Your task to perform on an android device: Show me recent news Image 0: 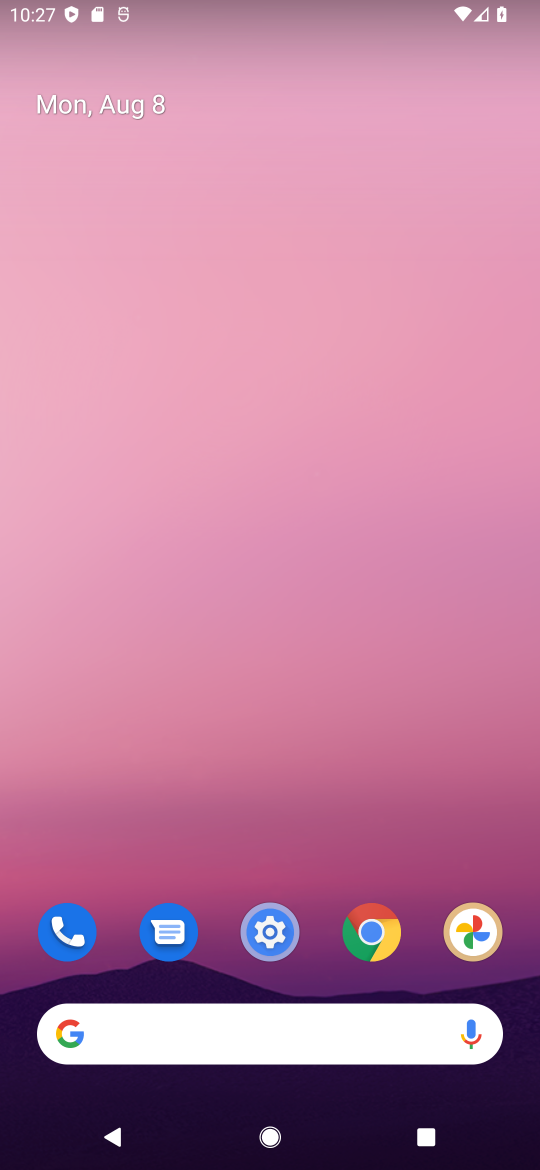
Step 0: click (369, 922)
Your task to perform on an android device: Show me recent news Image 1: 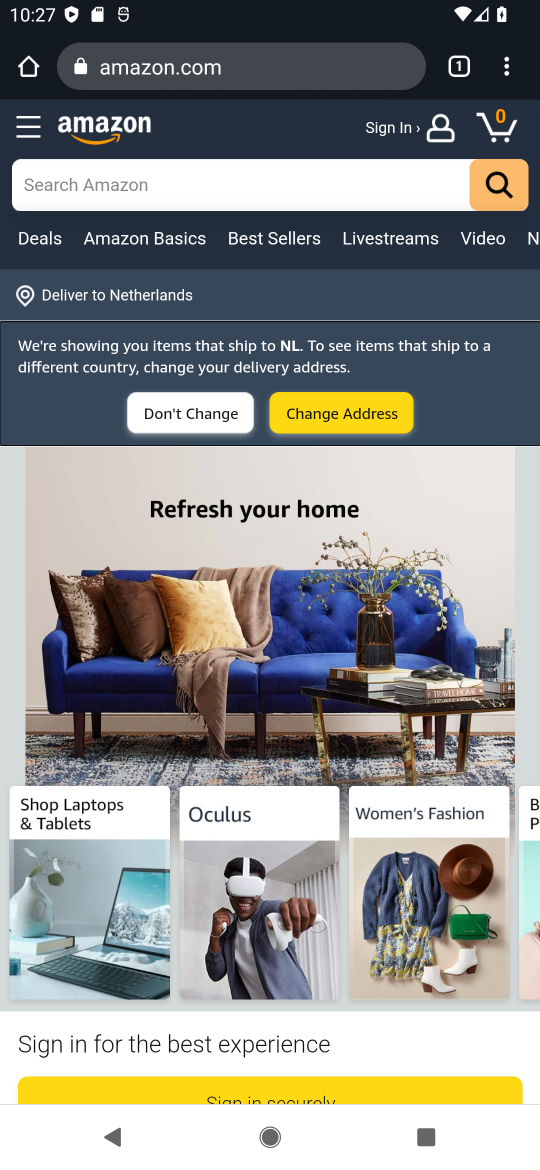
Step 1: click (36, 77)
Your task to perform on an android device: Show me recent news Image 2: 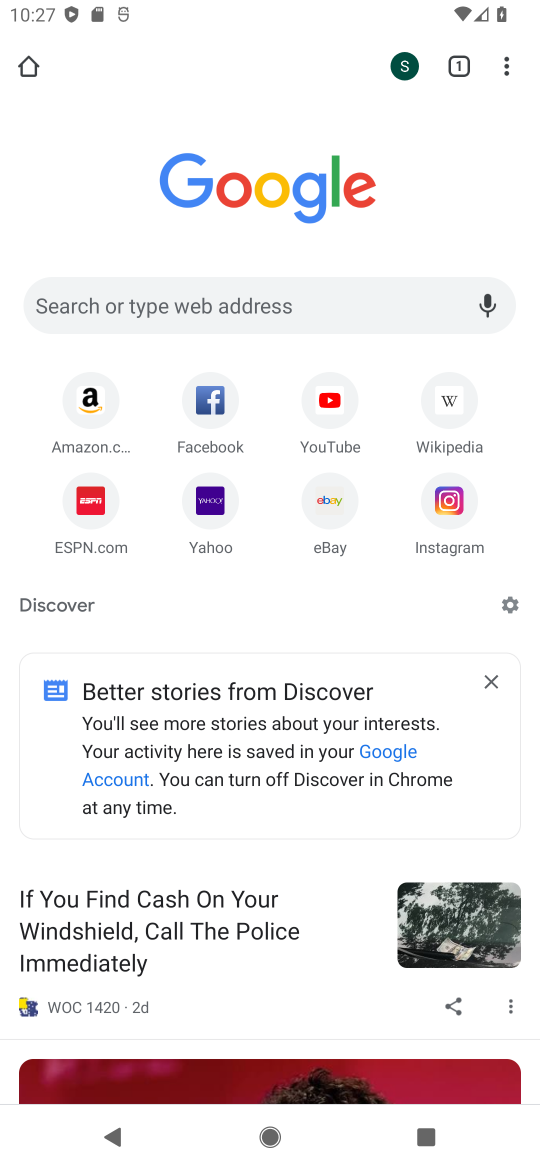
Step 2: task complete